Your task to perform on an android device: Open eBay Image 0: 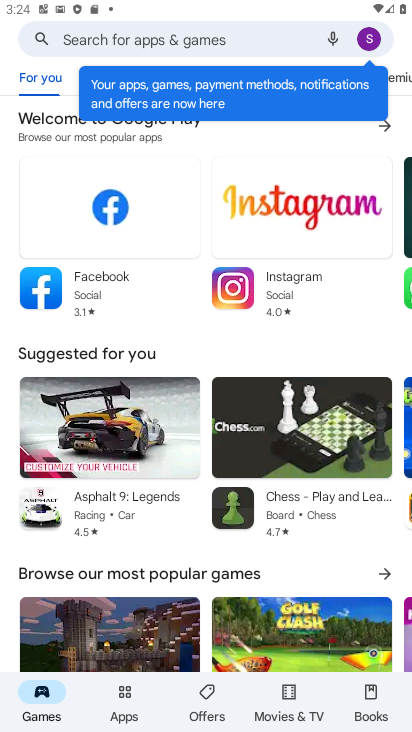
Step 0: press home button
Your task to perform on an android device: Open eBay Image 1: 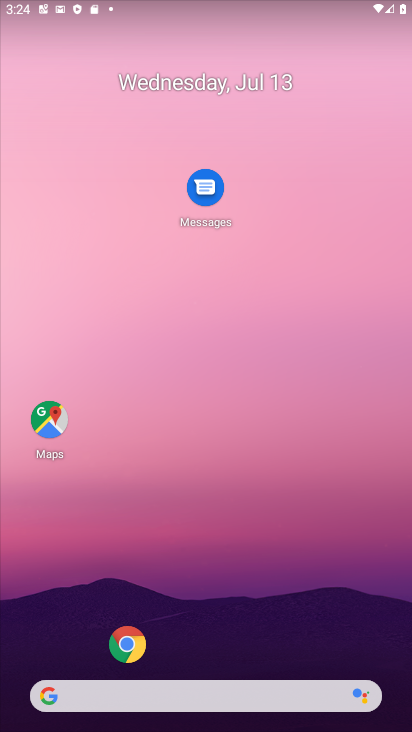
Step 1: click (87, 690)
Your task to perform on an android device: Open eBay Image 2: 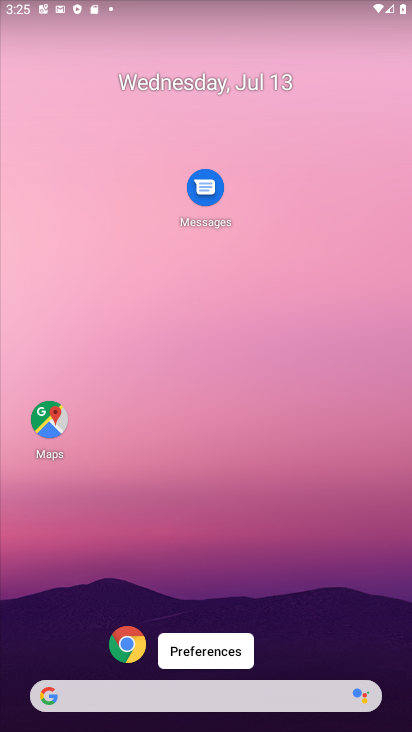
Step 2: click (96, 698)
Your task to perform on an android device: Open eBay Image 3: 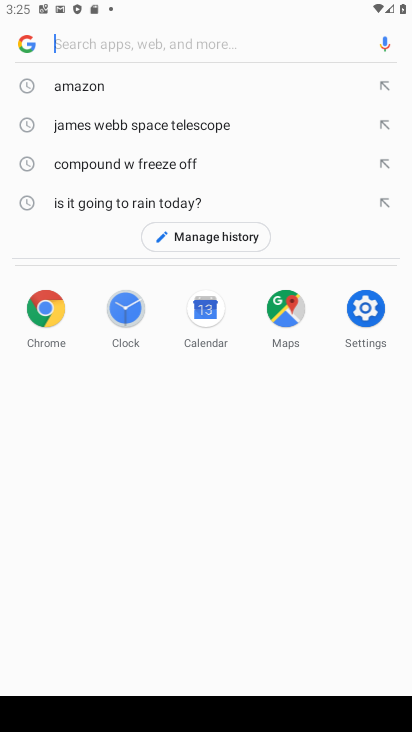
Step 3: type "eBay"
Your task to perform on an android device: Open eBay Image 4: 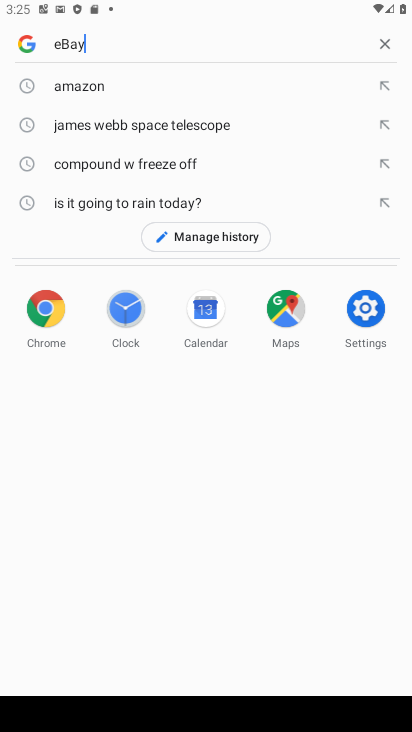
Step 4: type ""
Your task to perform on an android device: Open eBay Image 5: 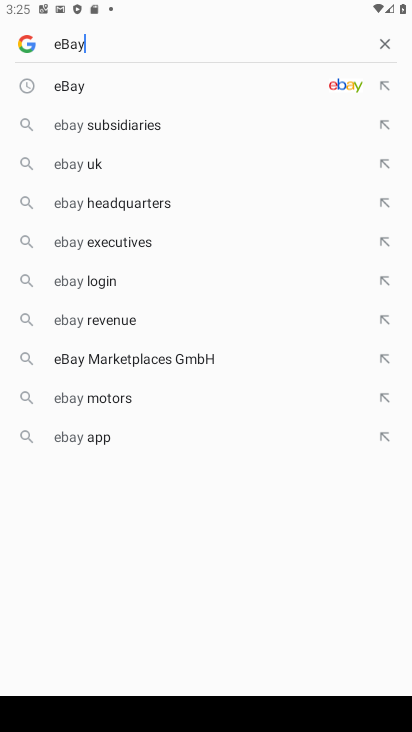
Step 5: click (64, 84)
Your task to perform on an android device: Open eBay Image 6: 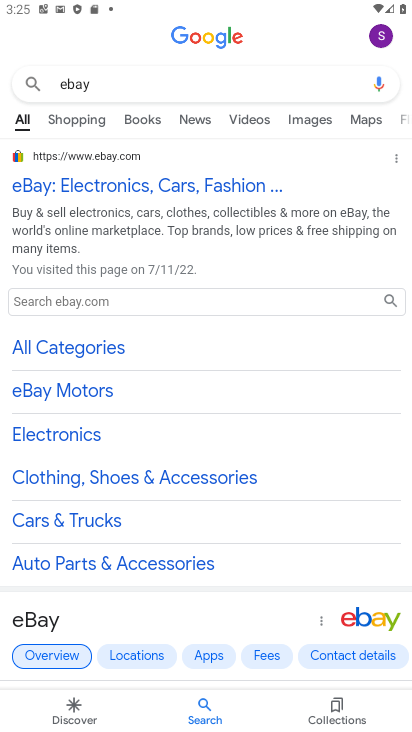
Step 6: task complete